Your task to perform on an android device: turn pop-ups off in chrome Image 0: 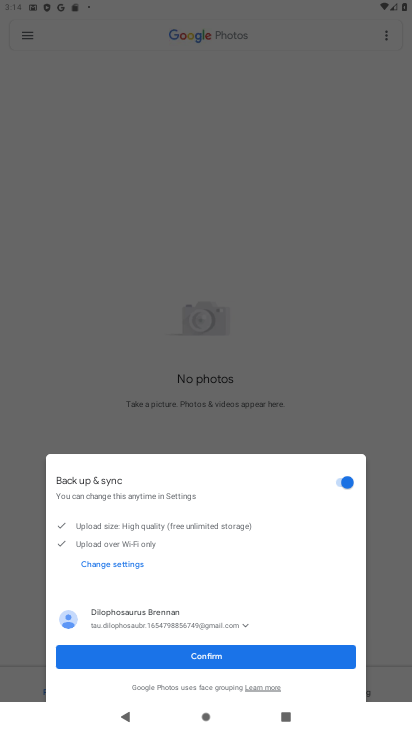
Step 0: press home button
Your task to perform on an android device: turn pop-ups off in chrome Image 1: 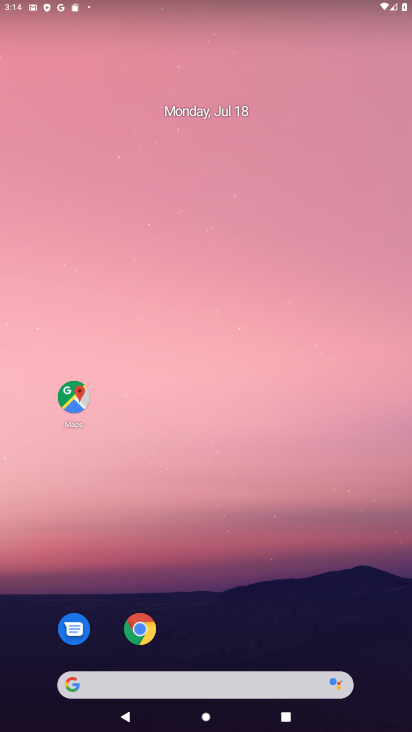
Step 1: click (136, 633)
Your task to perform on an android device: turn pop-ups off in chrome Image 2: 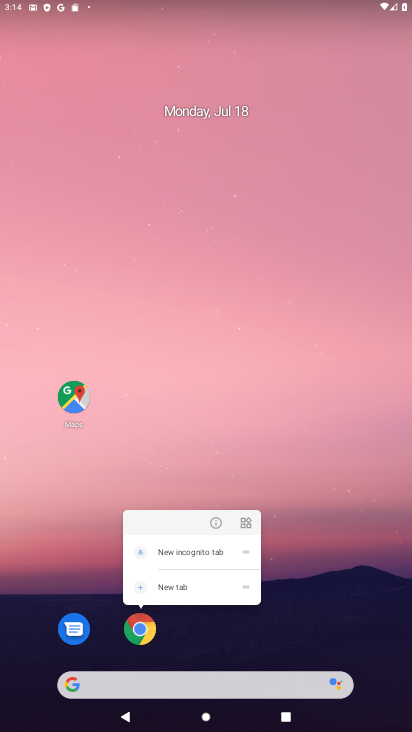
Step 2: click (136, 633)
Your task to perform on an android device: turn pop-ups off in chrome Image 3: 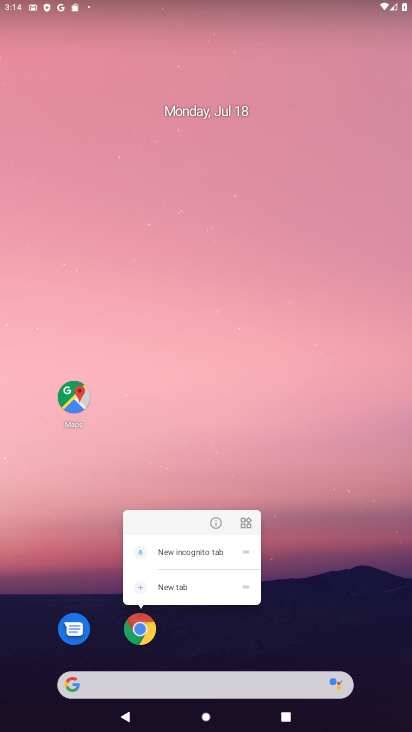
Step 3: click (136, 633)
Your task to perform on an android device: turn pop-ups off in chrome Image 4: 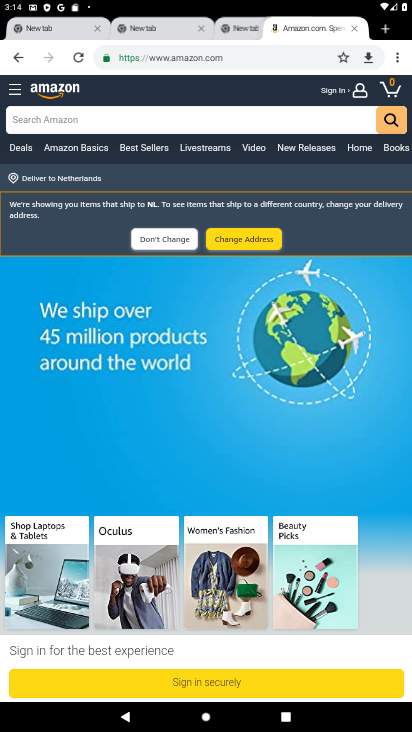
Step 4: click (394, 61)
Your task to perform on an android device: turn pop-ups off in chrome Image 5: 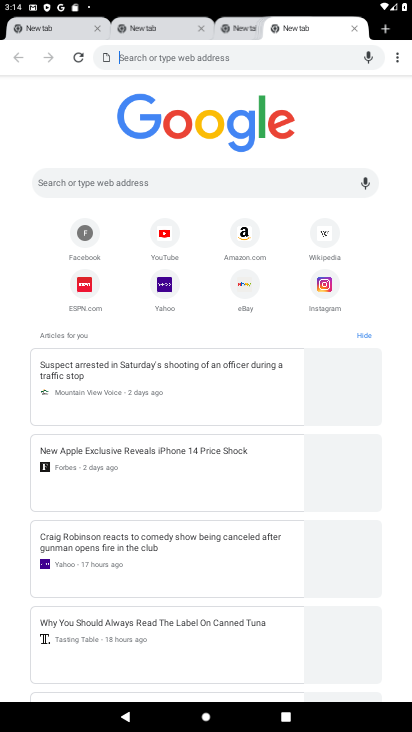
Step 5: click (394, 61)
Your task to perform on an android device: turn pop-ups off in chrome Image 6: 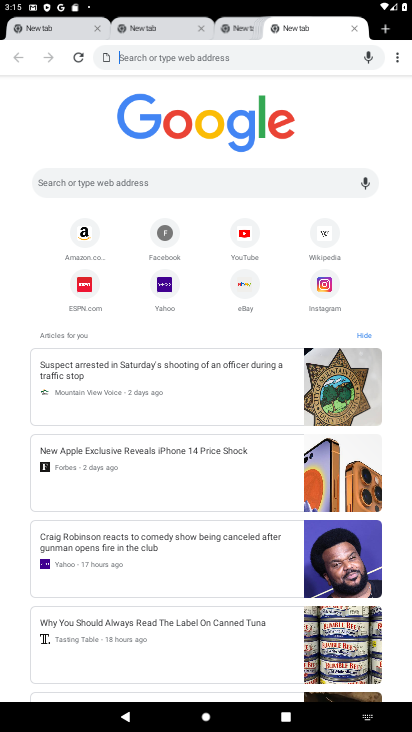
Step 6: click (394, 55)
Your task to perform on an android device: turn pop-ups off in chrome Image 7: 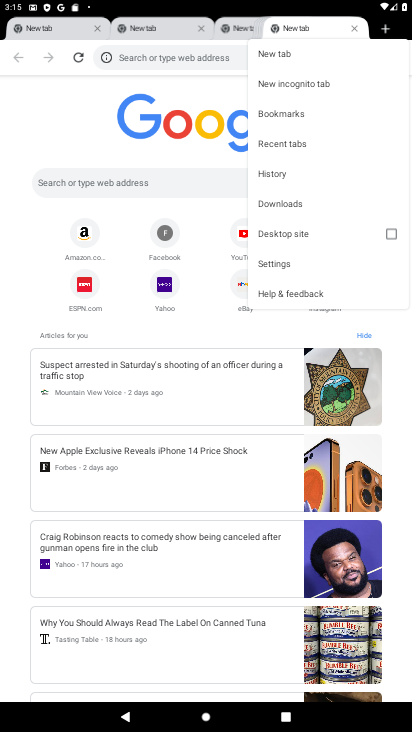
Step 7: click (276, 260)
Your task to perform on an android device: turn pop-ups off in chrome Image 8: 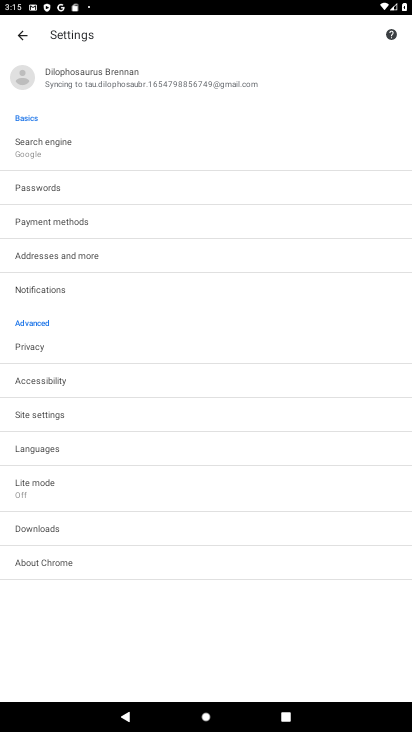
Step 8: click (21, 413)
Your task to perform on an android device: turn pop-ups off in chrome Image 9: 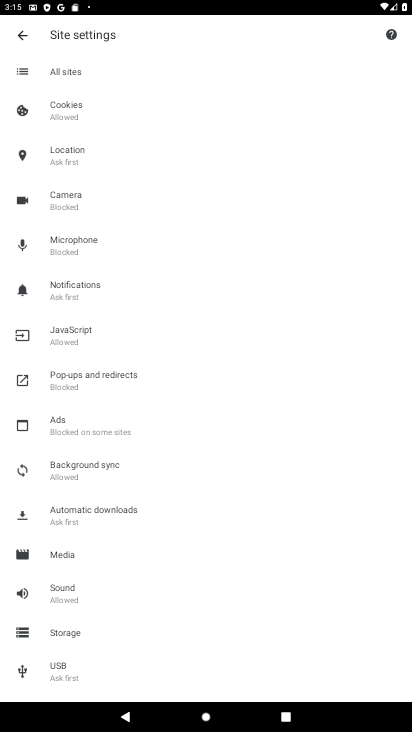
Step 9: click (75, 371)
Your task to perform on an android device: turn pop-ups off in chrome Image 10: 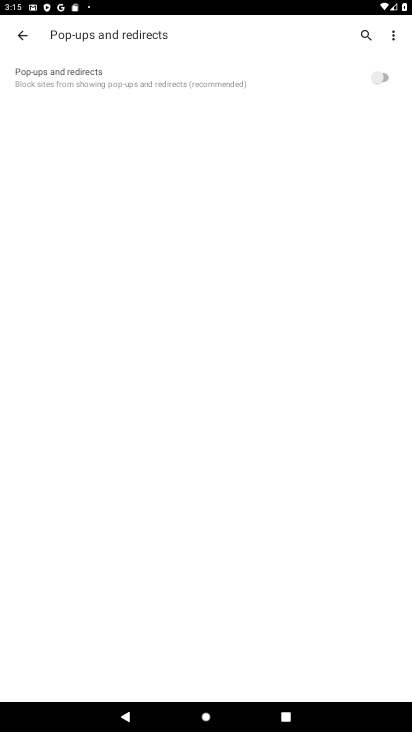
Step 10: task complete